Your task to perform on an android device: change your default location settings in chrome Image 0: 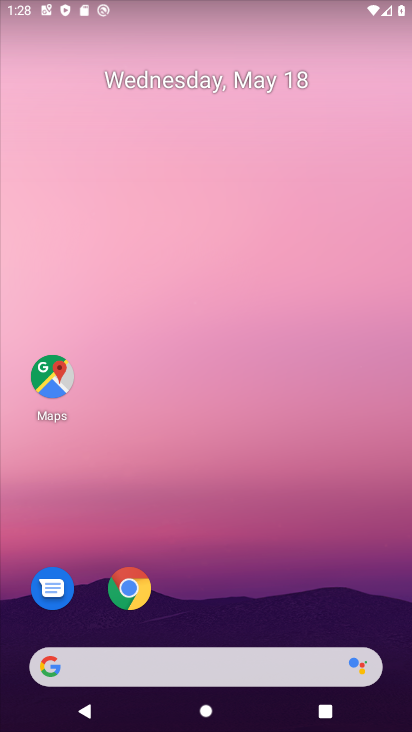
Step 0: drag from (360, 593) to (355, 174)
Your task to perform on an android device: change your default location settings in chrome Image 1: 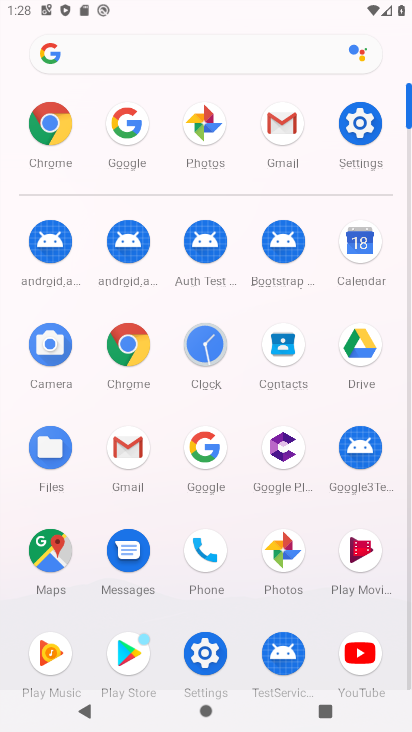
Step 1: click (114, 350)
Your task to perform on an android device: change your default location settings in chrome Image 2: 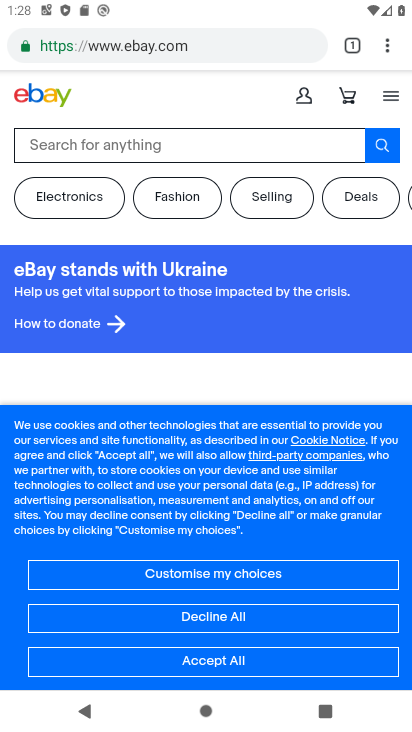
Step 2: click (388, 49)
Your task to perform on an android device: change your default location settings in chrome Image 3: 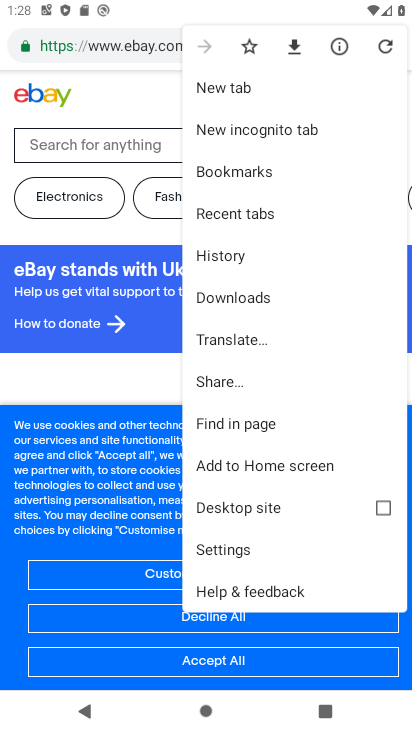
Step 3: click (275, 552)
Your task to perform on an android device: change your default location settings in chrome Image 4: 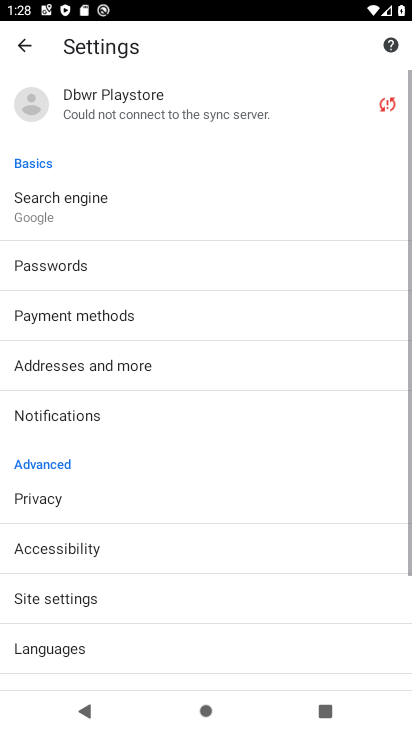
Step 4: drag from (275, 552) to (293, 454)
Your task to perform on an android device: change your default location settings in chrome Image 5: 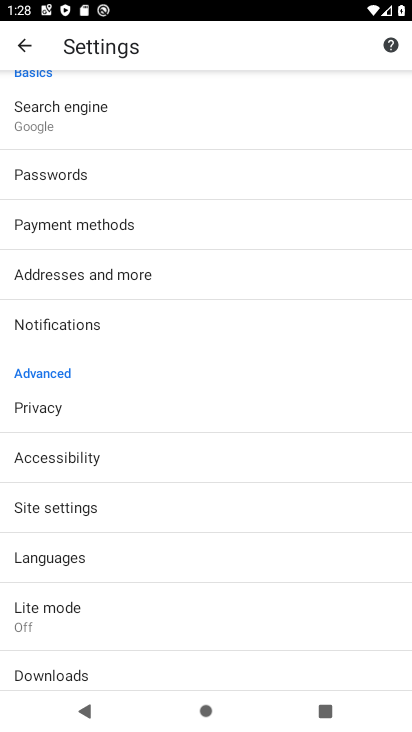
Step 5: drag from (294, 564) to (306, 490)
Your task to perform on an android device: change your default location settings in chrome Image 6: 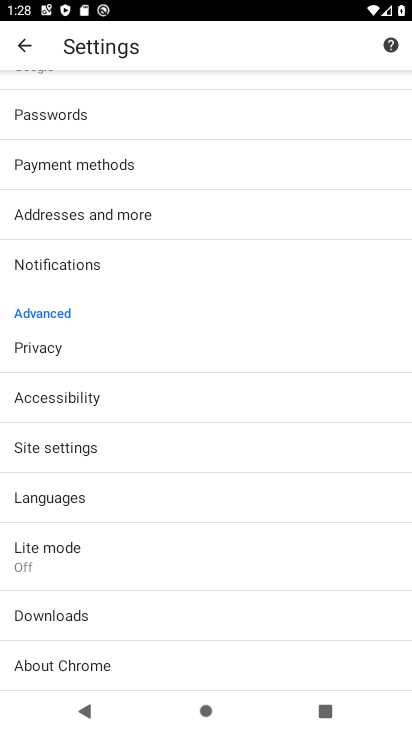
Step 6: drag from (262, 593) to (274, 440)
Your task to perform on an android device: change your default location settings in chrome Image 7: 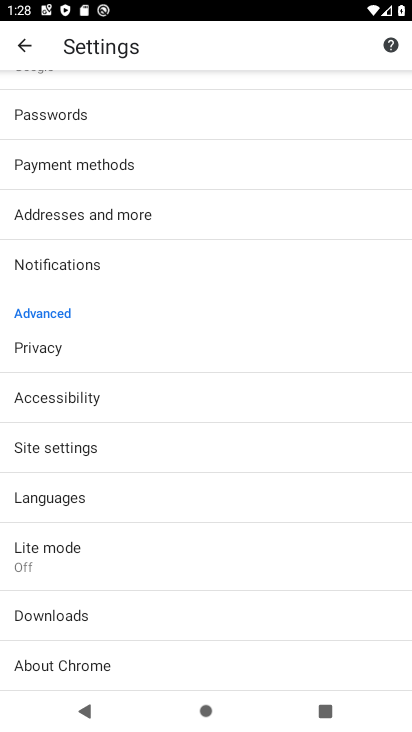
Step 7: drag from (255, 583) to (262, 444)
Your task to perform on an android device: change your default location settings in chrome Image 8: 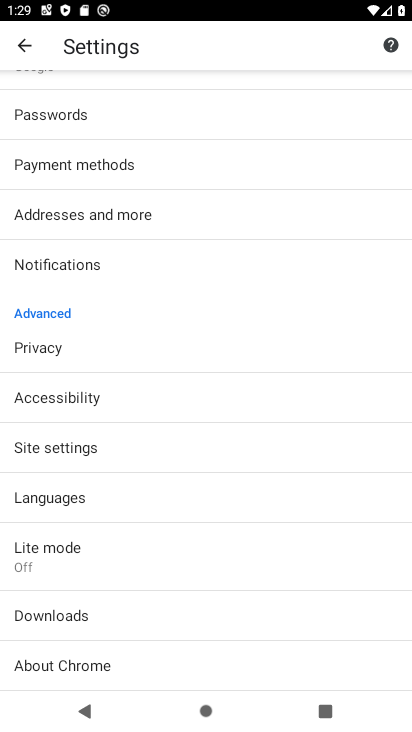
Step 8: click (241, 446)
Your task to perform on an android device: change your default location settings in chrome Image 9: 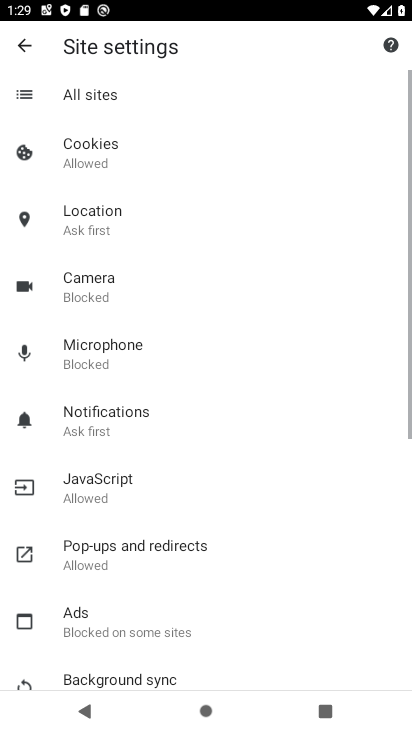
Step 9: drag from (260, 573) to (280, 489)
Your task to perform on an android device: change your default location settings in chrome Image 10: 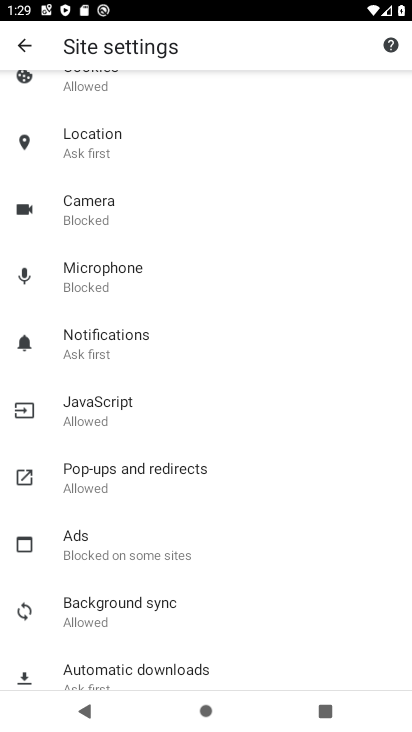
Step 10: drag from (278, 601) to (302, 483)
Your task to perform on an android device: change your default location settings in chrome Image 11: 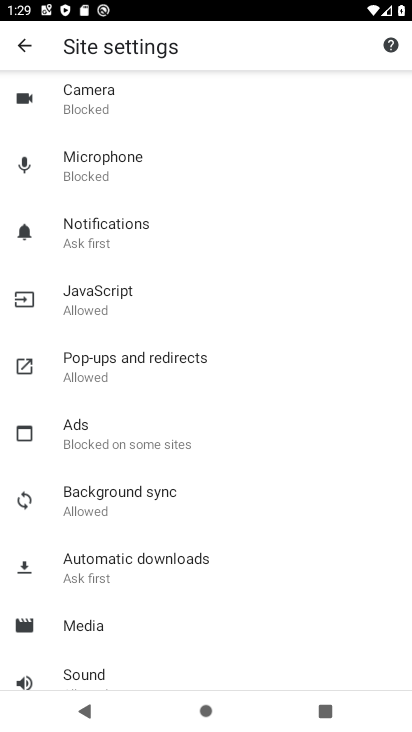
Step 11: drag from (302, 543) to (293, 458)
Your task to perform on an android device: change your default location settings in chrome Image 12: 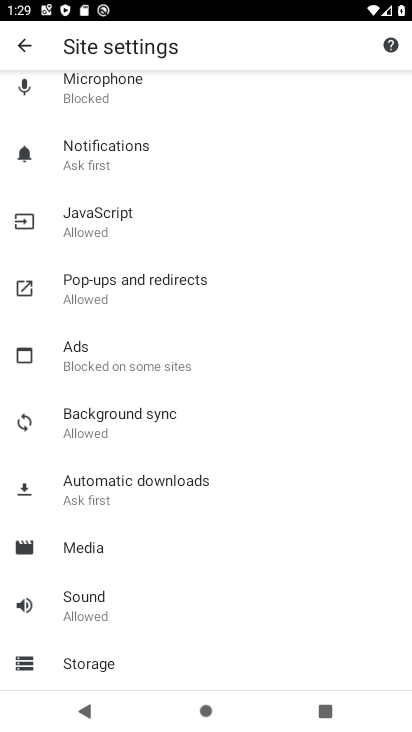
Step 12: drag from (292, 572) to (322, 441)
Your task to perform on an android device: change your default location settings in chrome Image 13: 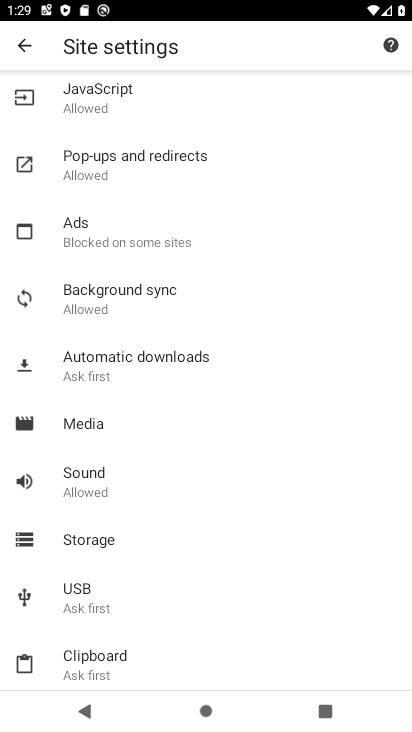
Step 13: drag from (303, 614) to (332, 473)
Your task to perform on an android device: change your default location settings in chrome Image 14: 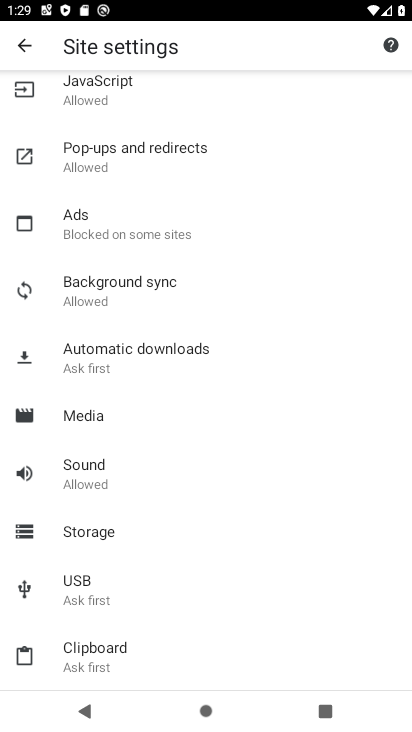
Step 14: drag from (300, 581) to (339, 396)
Your task to perform on an android device: change your default location settings in chrome Image 15: 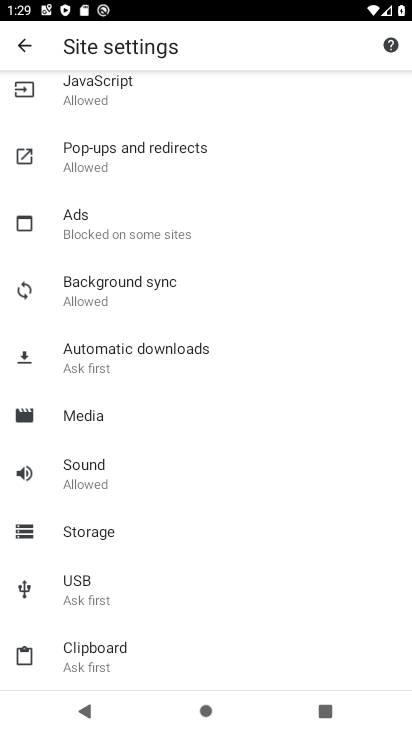
Step 15: drag from (330, 239) to (314, 382)
Your task to perform on an android device: change your default location settings in chrome Image 16: 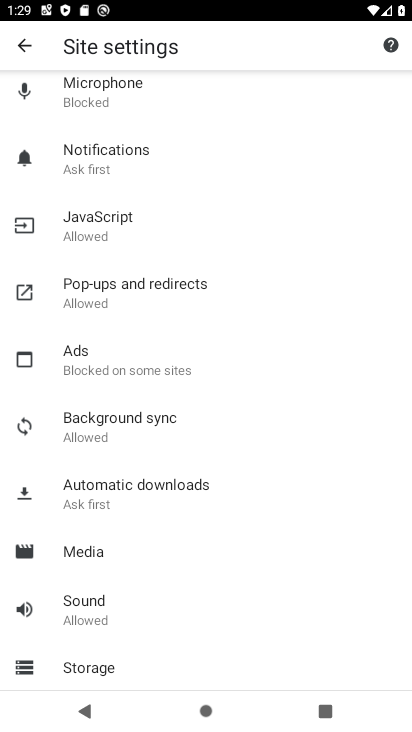
Step 16: drag from (313, 177) to (319, 356)
Your task to perform on an android device: change your default location settings in chrome Image 17: 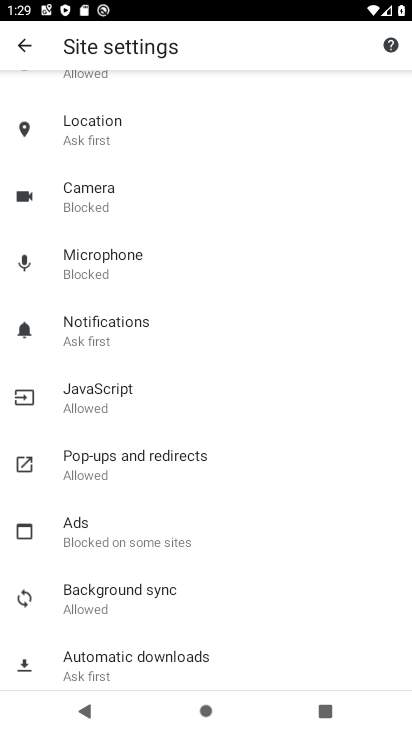
Step 17: drag from (319, 220) to (306, 357)
Your task to perform on an android device: change your default location settings in chrome Image 18: 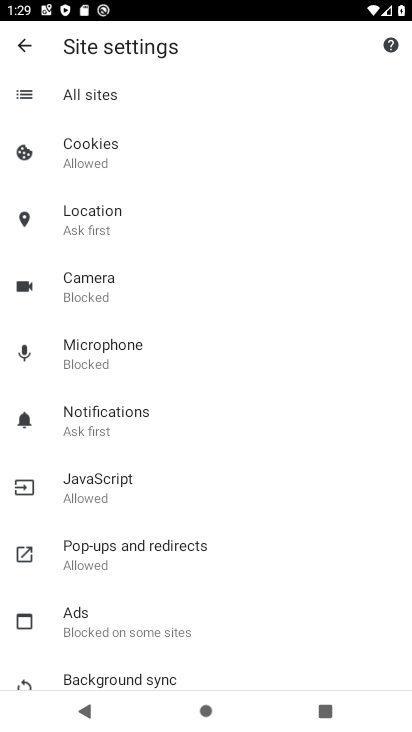
Step 18: drag from (332, 255) to (308, 451)
Your task to perform on an android device: change your default location settings in chrome Image 19: 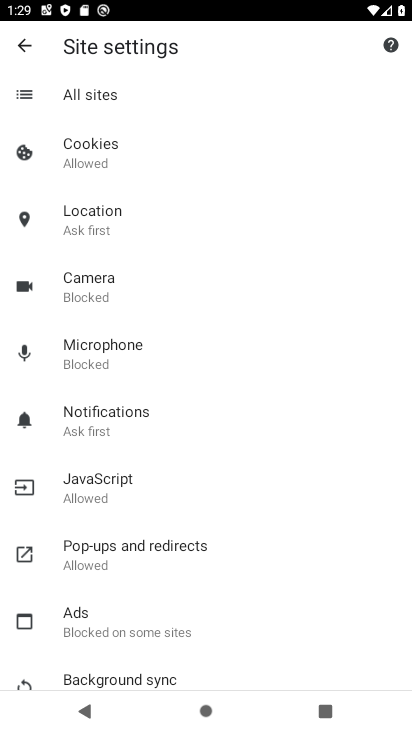
Step 19: click (120, 215)
Your task to perform on an android device: change your default location settings in chrome Image 20: 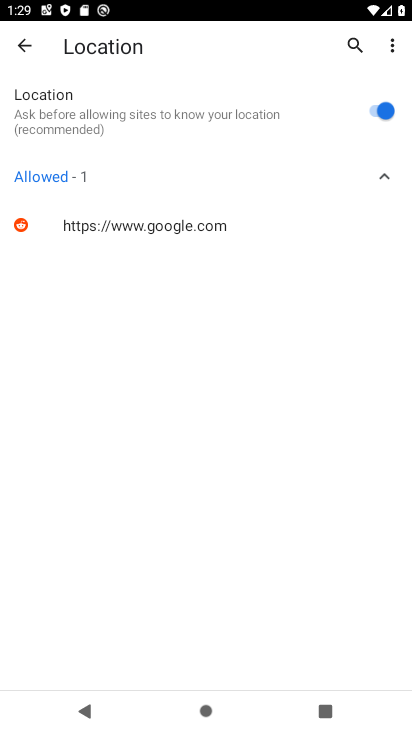
Step 20: click (384, 95)
Your task to perform on an android device: change your default location settings in chrome Image 21: 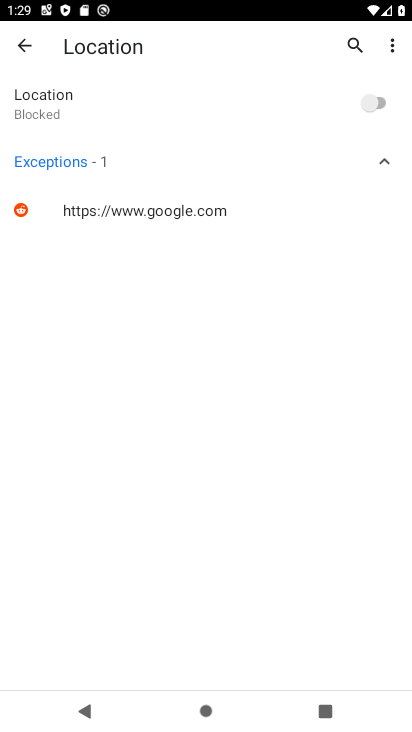
Step 21: task complete